Your task to perform on an android device: open app "Gboard" (install if not already installed) Image 0: 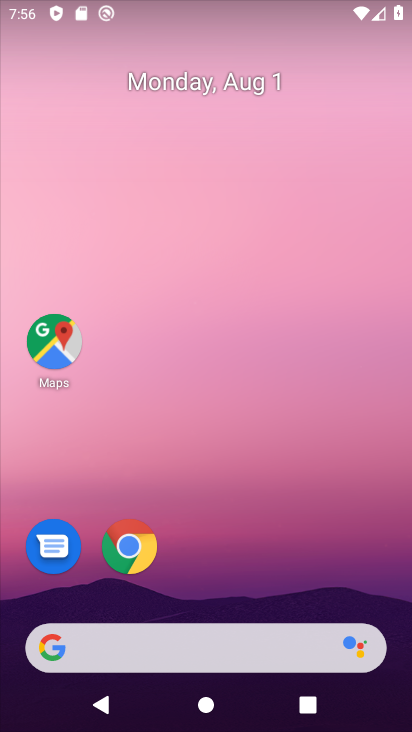
Step 0: drag from (211, 465) to (282, 13)
Your task to perform on an android device: open app "Gboard" (install if not already installed) Image 1: 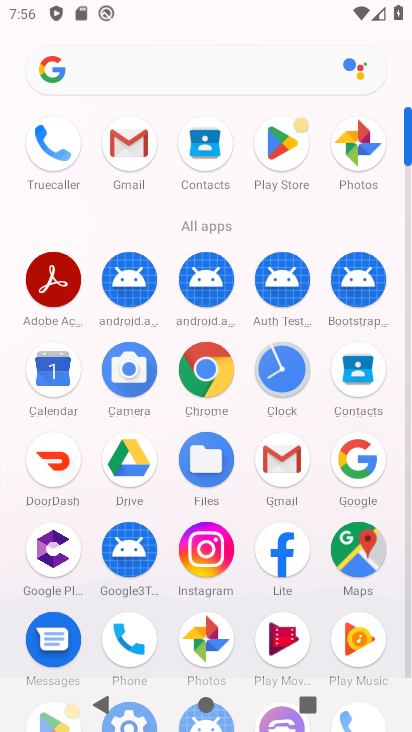
Step 1: click (280, 152)
Your task to perform on an android device: open app "Gboard" (install if not already installed) Image 2: 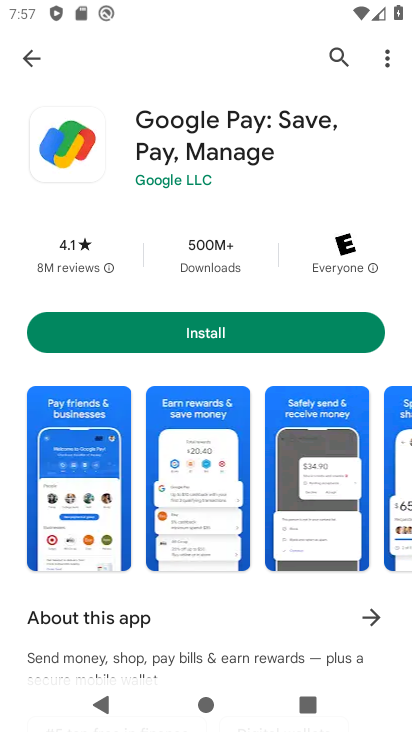
Step 2: click (30, 55)
Your task to perform on an android device: open app "Gboard" (install if not already installed) Image 3: 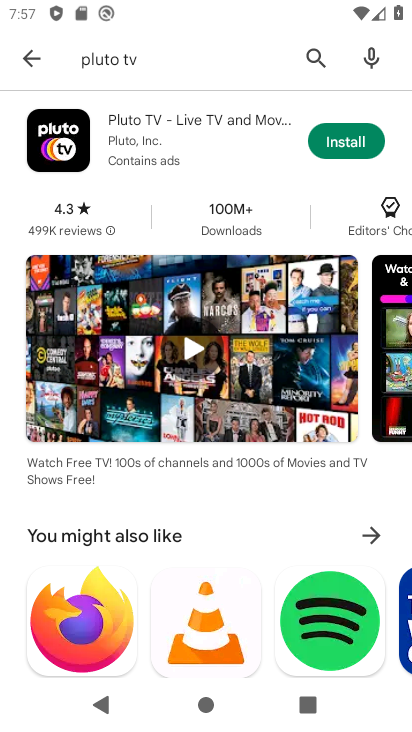
Step 3: click (291, 54)
Your task to perform on an android device: open app "Gboard" (install if not already installed) Image 4: 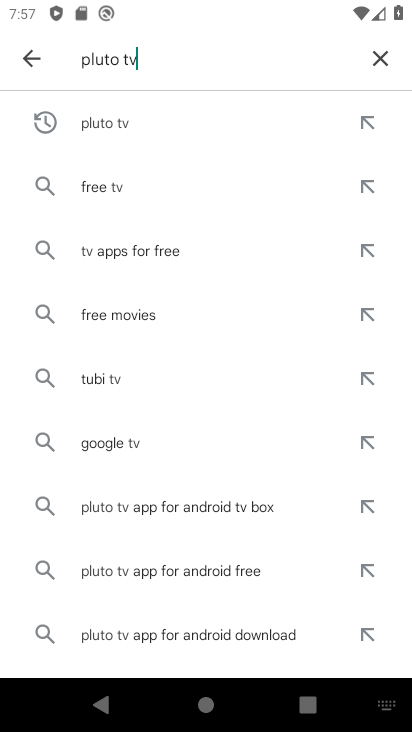
Step 4: click (378, 53)
Your task to perform on an android device: open app "Gboard" (install if not already installed) Image 5: 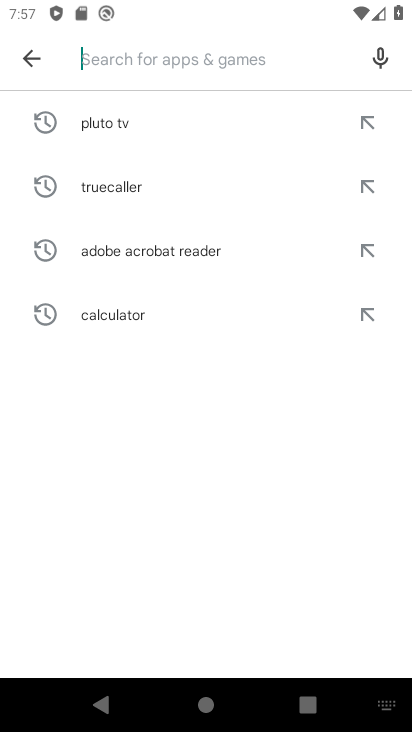
Step 5: type "Gboard"
Your task to perform on an android device: open app "Gboard" (install if not already installed) Image 6: 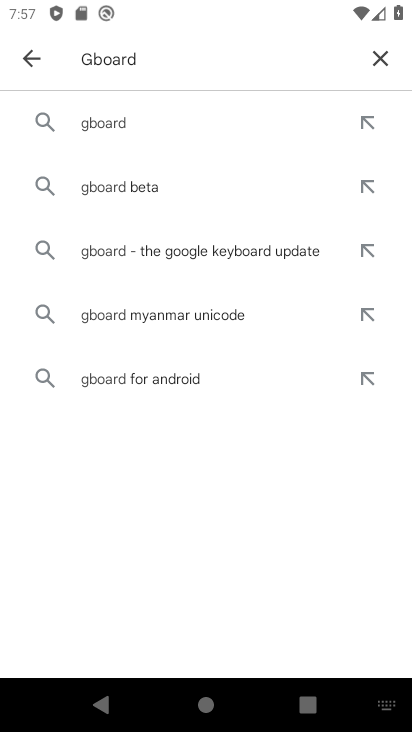
Step 6: click (118, 122)
Your task to perform on an android device: open app "Gboard" (install if not already installed) Image 7: 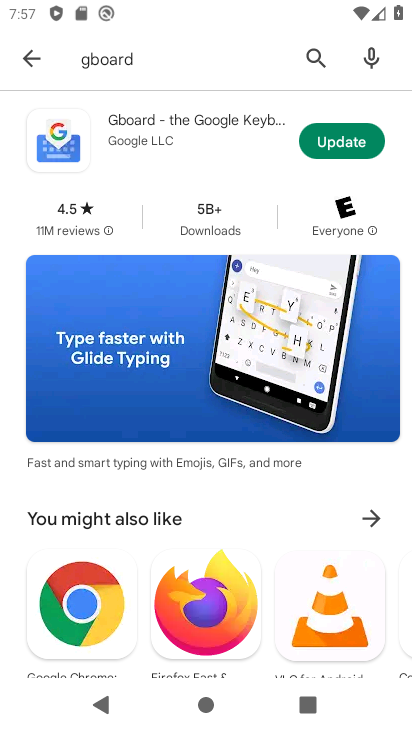
Step 7: click (321, 142)
Your task to perform on an android device: open app "Gboard" (install if not already installed) Image 8: 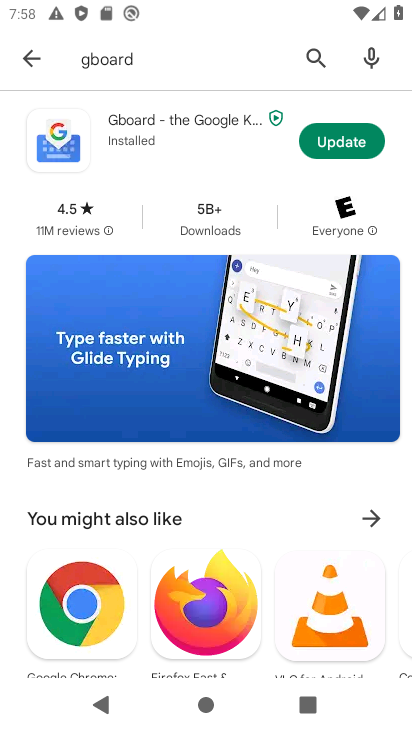
Step 8: click (368, 141)
Your task to perform on an android device: open app "Gboard" (install if not already installed) Image 9: 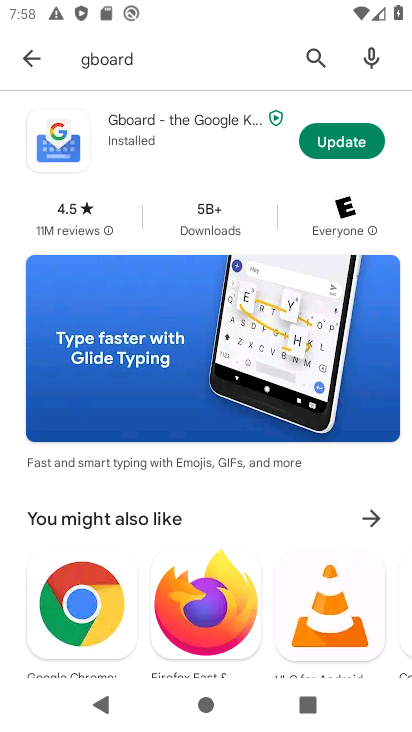
Step 9: click (68, 133)
Your task to perform on an android device: open app "Gboard" (install if not already installed) Image 10: 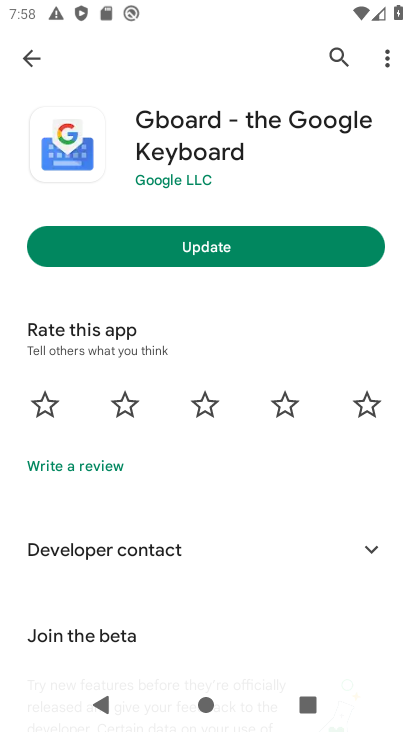
Step 10: click (193, 248)
Your task to perform on an android device: open app "Gboard" (install if not already installed) Image 11: 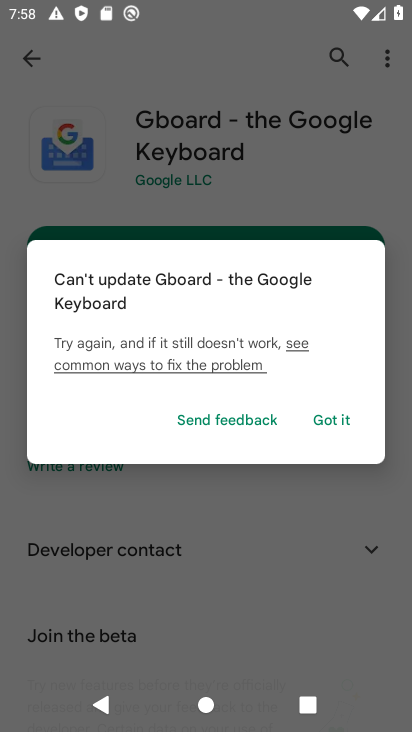
Step 11: click (341, 416)
Your task to perform on an android device: open app "Gboard" (install if not already installed) Image 12: 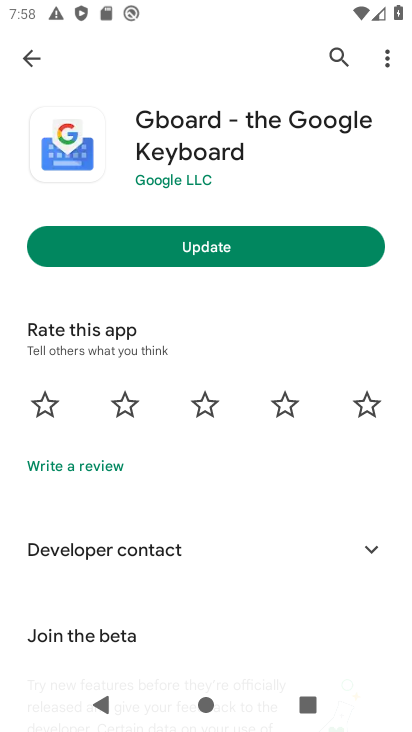
Step 12: click (344, 242)
Your task to perform on an android device: open app "Gboard" (install if not already installed) Image 13: 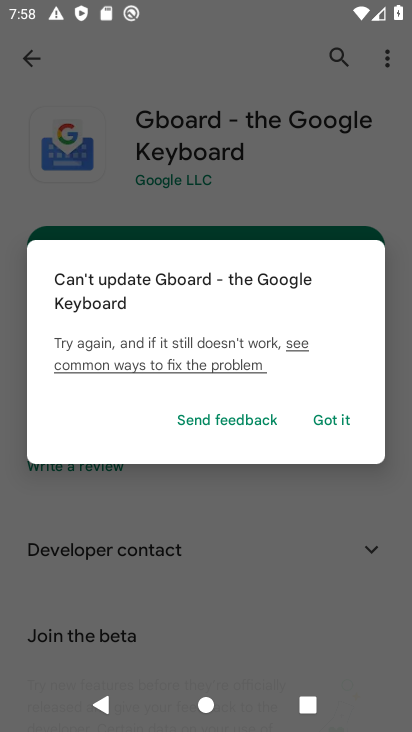
Step 13: click (332, 423)
Your task to perform on an android device: open app "Gboard" (install if not already installed) Image 14: 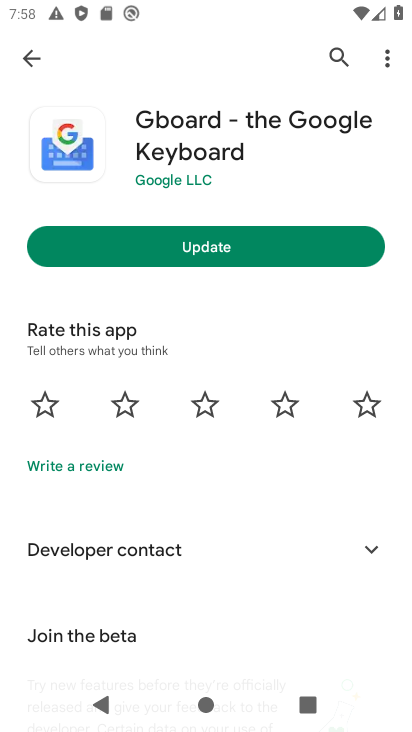
Step 14: task complete